Your task to perform on an android device: Open calendar and show me the third week of next month Image 0: 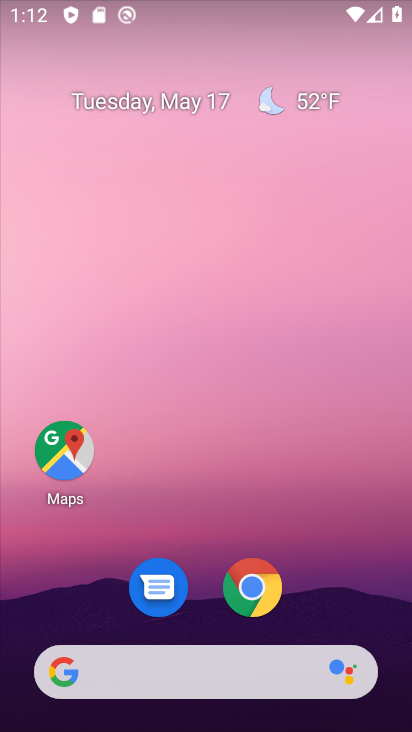
Step 0: drag from (372, 568) to (311, 73)
Your task to perform on an android device: Open calendar and show me the third week of next month Image 1: 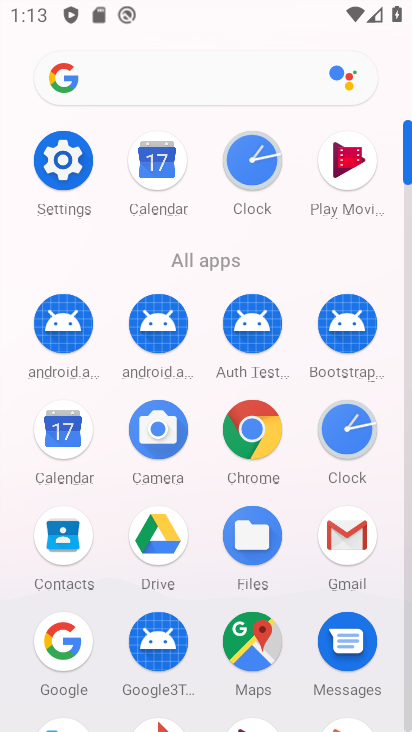
Step 1: click (59, 470)
Your task to perform on an android device: Open calendar and show me the third week of next month Image 2: 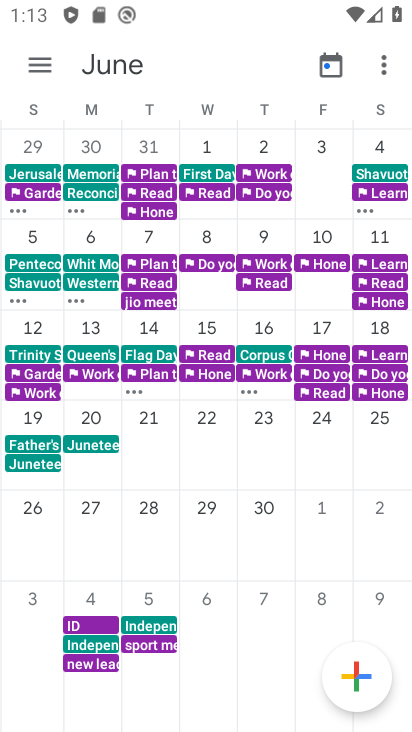
Step 2: click (118, 68)
Your task to perform on an android device: Open calendar and show me the third week of next month Image 3: 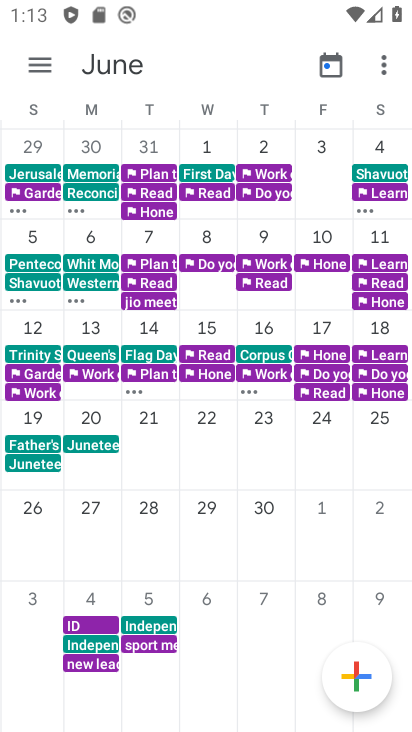
Step 3: task complete